Your task to perform on an android device: See recent photos Image 0: 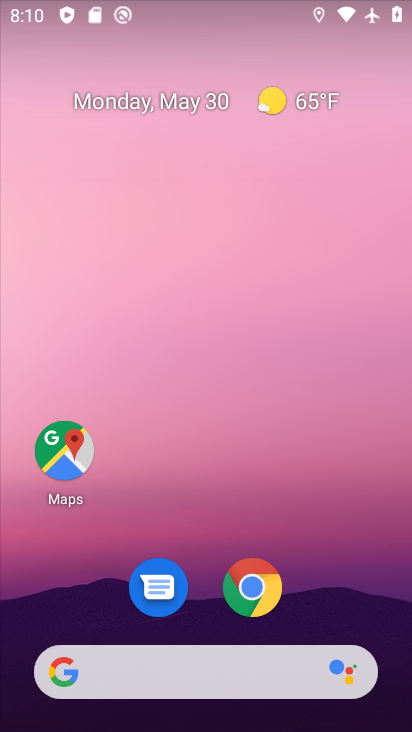
Step 0: press home button
Your task to perform on an android device: See recent photos Image 1: 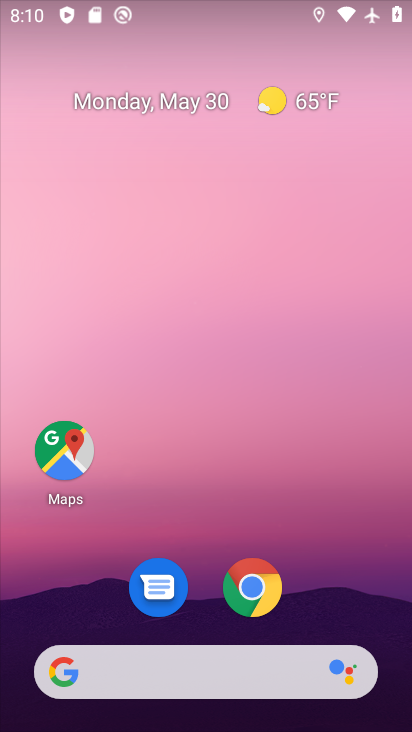
Step 1: drag from (188, 652) to (361, 45)
Your task to perform on an android device: See recent photos Image 2: 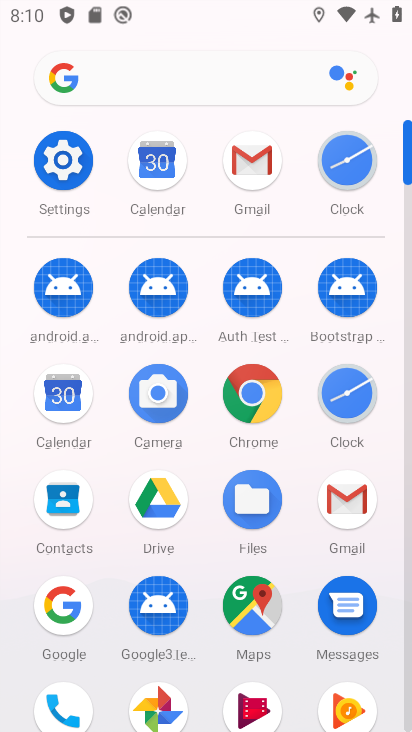
Step 2: click (162, 704)
Your task to perform on an android device: See recent photos Image 3: 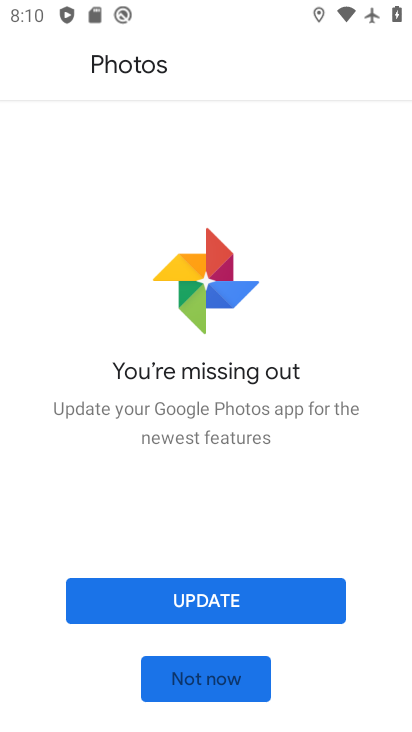
Step 3: click (223, 599)
Your task to perform on an android device: See recent photos Image 4: 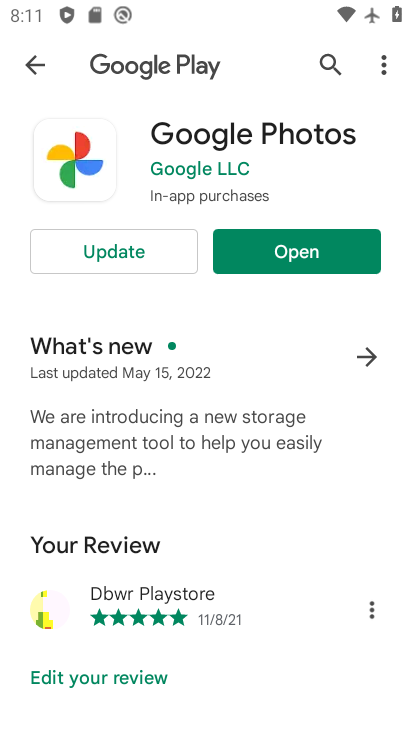
Step 4: click (112, 252)
Your task to perform on an android device: See recent photos Image 5: 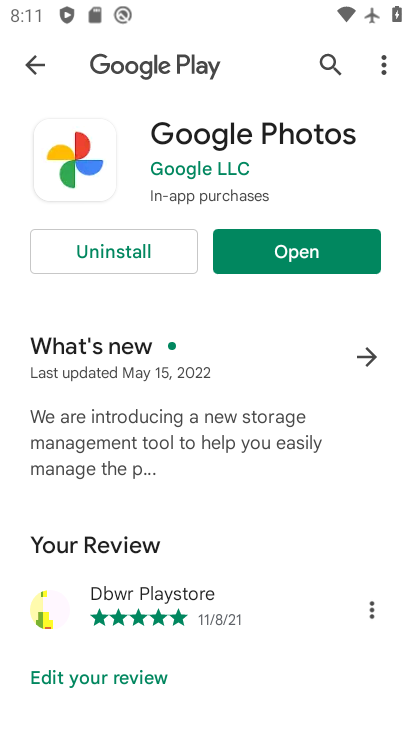
Step 5: click (307, 253)
Your task to perform on an android device: See recent photos Image 6: 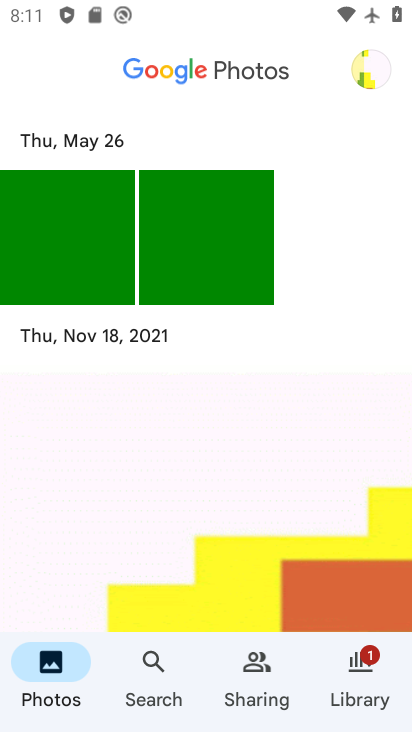
Step 6: click (164, 679)
Your task to perform on an android device: See recent photos Image 7: 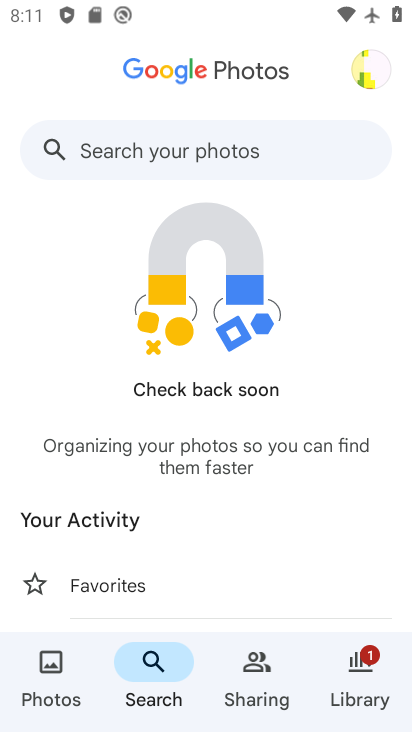
Step 7: drag from (215, 541) to (358, 145)
Your task to perform on an android device: See recent photos Image 8: 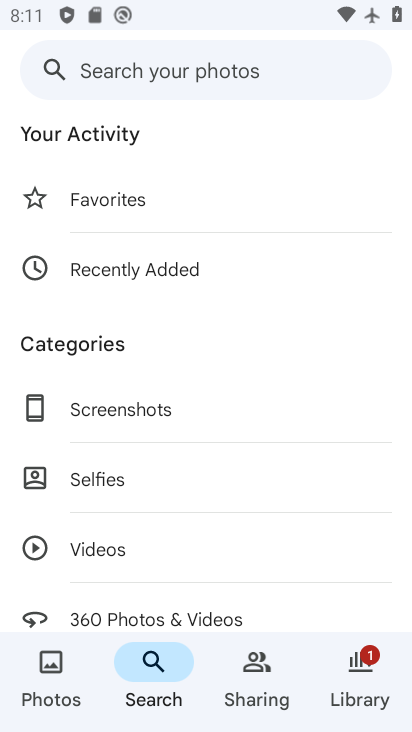
Step 8: click (141, 270)
Your task to perform on an android device: See recent photos Image 9: 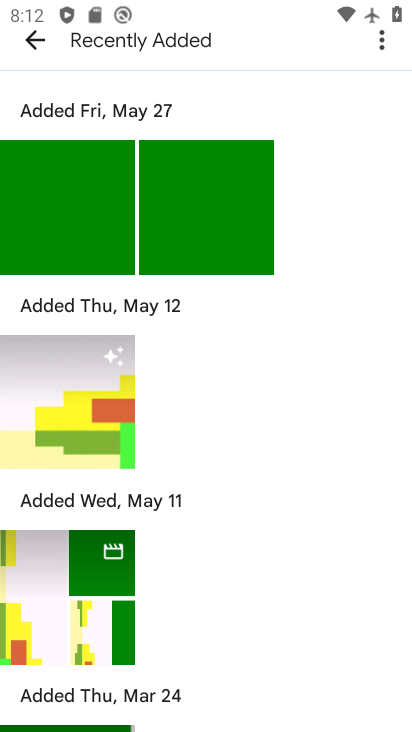
Step 9: task complete